Your task to perform on an android device: Search for pizza restaurants on Maps Image 0: 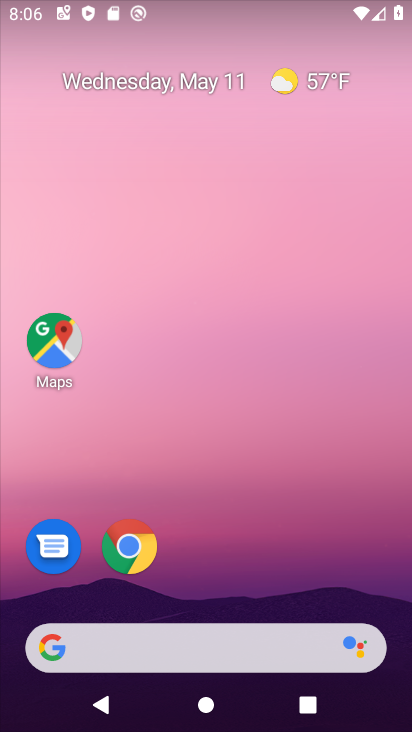
Step 0: click (40, 355)
Your task to perform on an android device: Search for pizza restaurants on Maps Image 1: 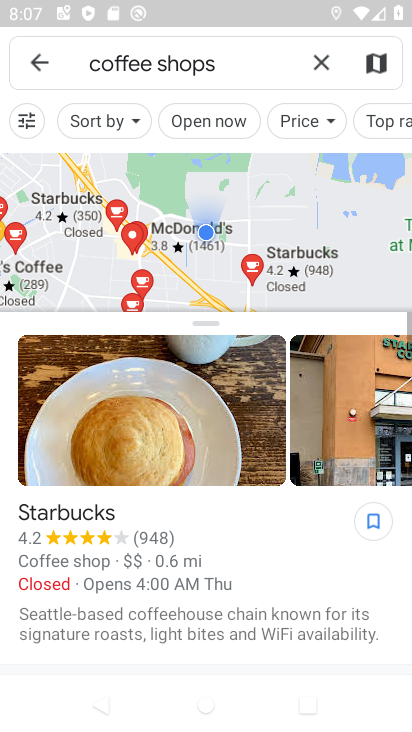
Step 1: click (313, 53)
Your task to perform on an android device: Search for pizza restaurants on Maps Image 2: 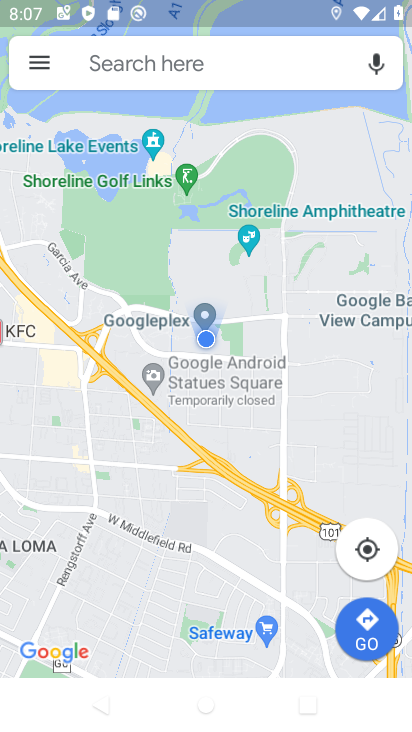
Step 2: type "pizza restaurants"
Your task to perform on an android device: Search for pizza restaurants on Maps Image 3: 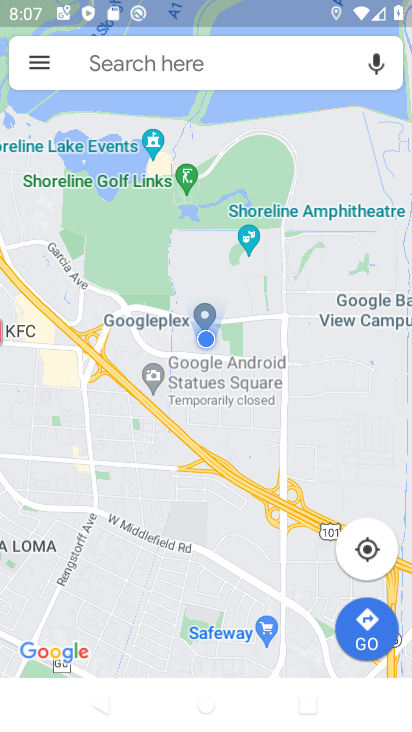
Step 3: click (195, 63)
Your task to perform on an android device: Search for pizza restaurants on Maps Image 4: 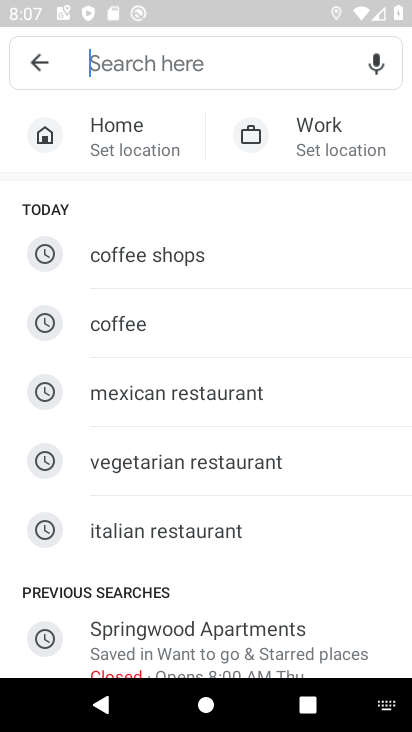
Step 4: type "pizza restaurants "
Your task to perform on an android device: Search for pizza restaurants on Maps Image 5: 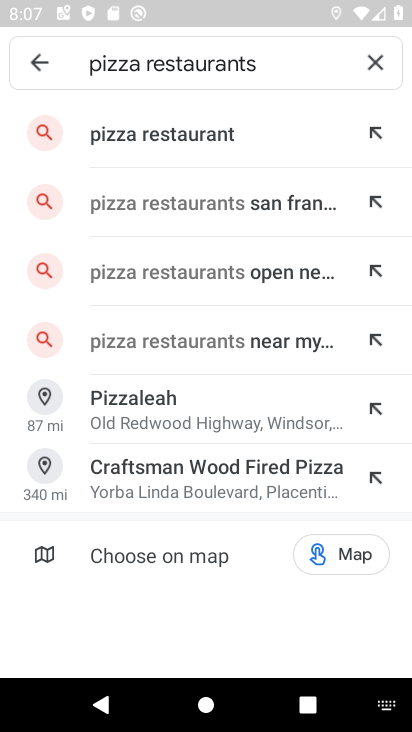
Step 5: click (184, 142)
Your task to perform on an android device: Search for pizza restaurants on Maps Image 6: 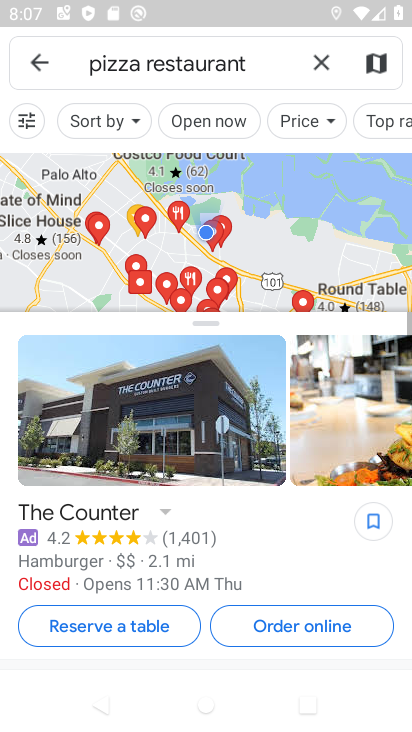
Step 6: task complete